Your task to perform on an android device: toggle javascript in the chrome app Image 0: 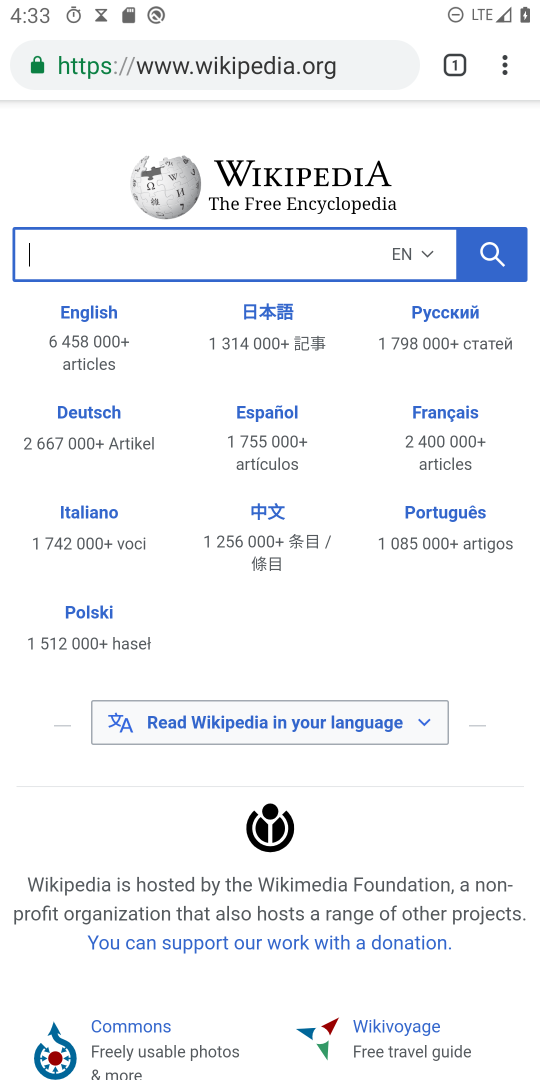
Step 0: press home button
Your task to perform on an android device: toggle javascript in the chrome app Image 1: 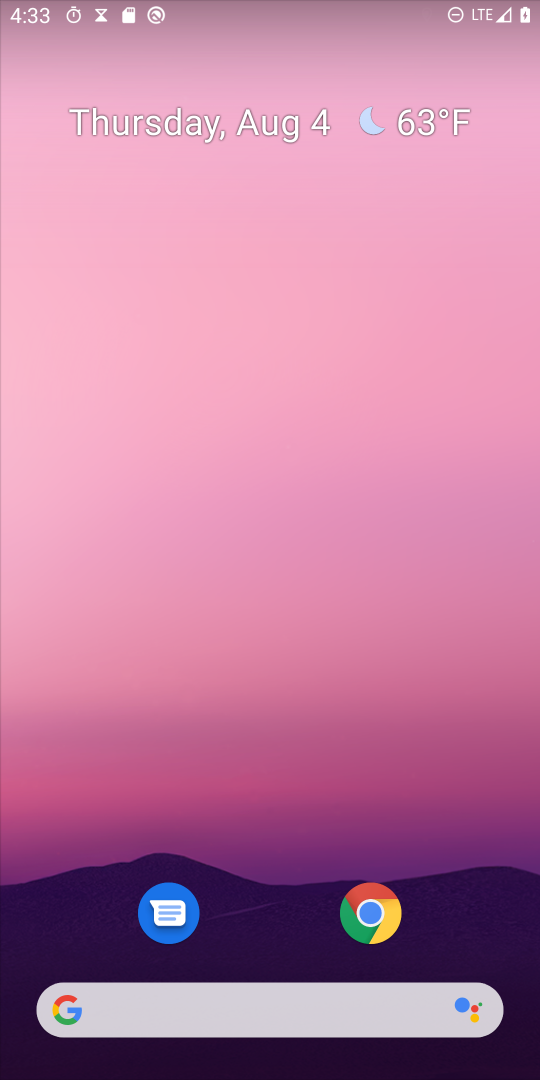
Step 1: drag from (383, 759) to (391, 179)
Your task to perform on an android device: toggle javascript in the chrome app Image 2: 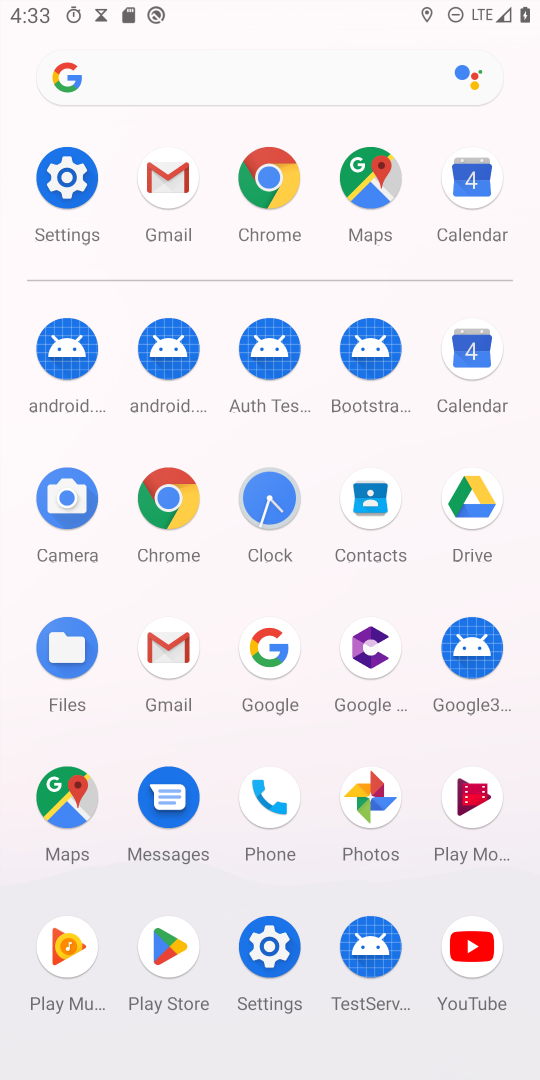
Step 2: click (162, 498)
Your task to perform on an android device: toggle javascript in the chrome app Image 3: 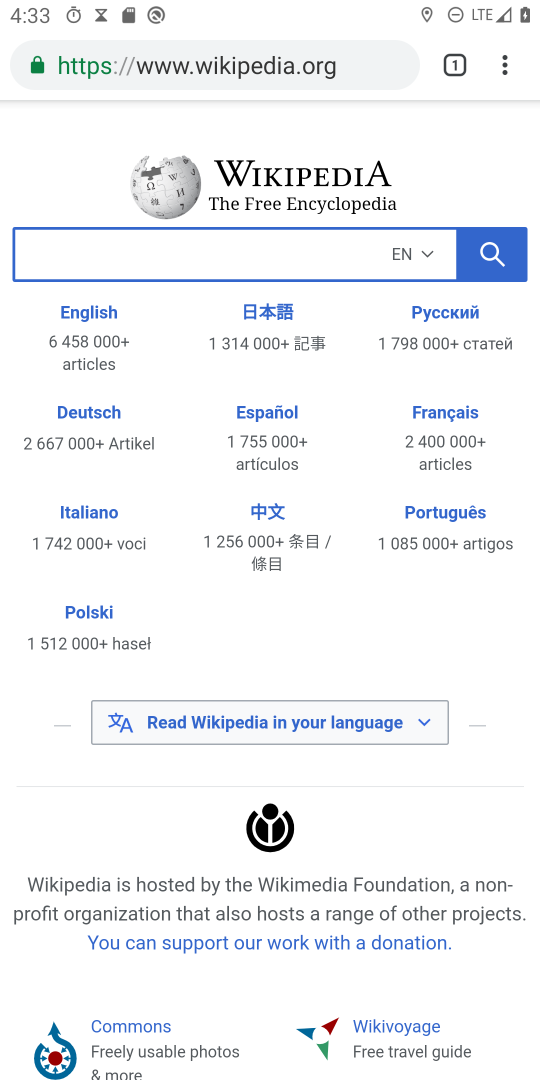
Step 3: click (497, 70)
Your task to perform on an android device: toggle javascript in the chrome app Image 4: 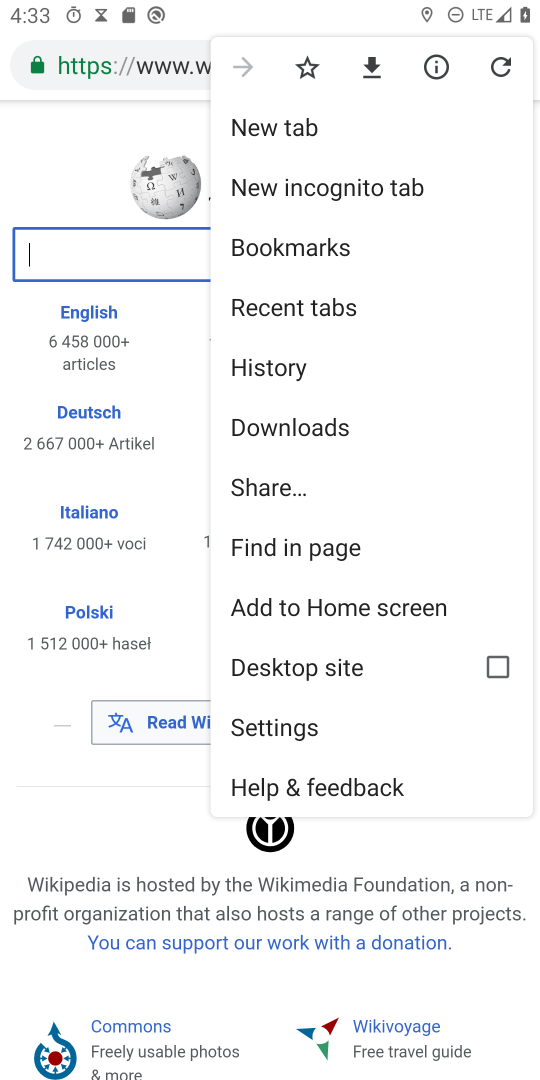
Step 4: click (321, 730)
Your task to perform on an android device: toggle javascript in the chrome app Image 5: 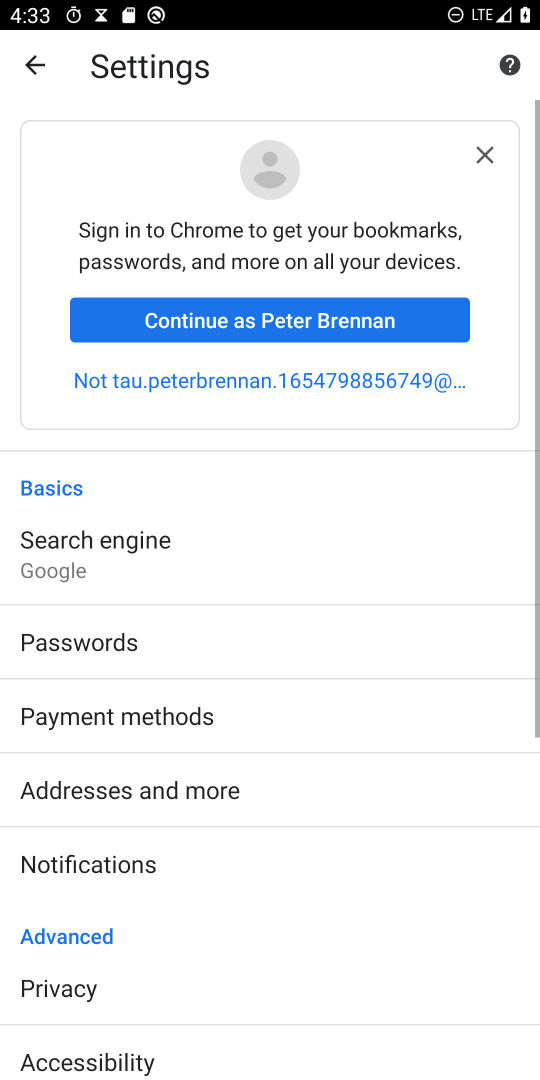
Step 5: drag from (315, 856) to (371, 206)
Your task to perform on an android device: toggle javascript in the chrome app Image 6: 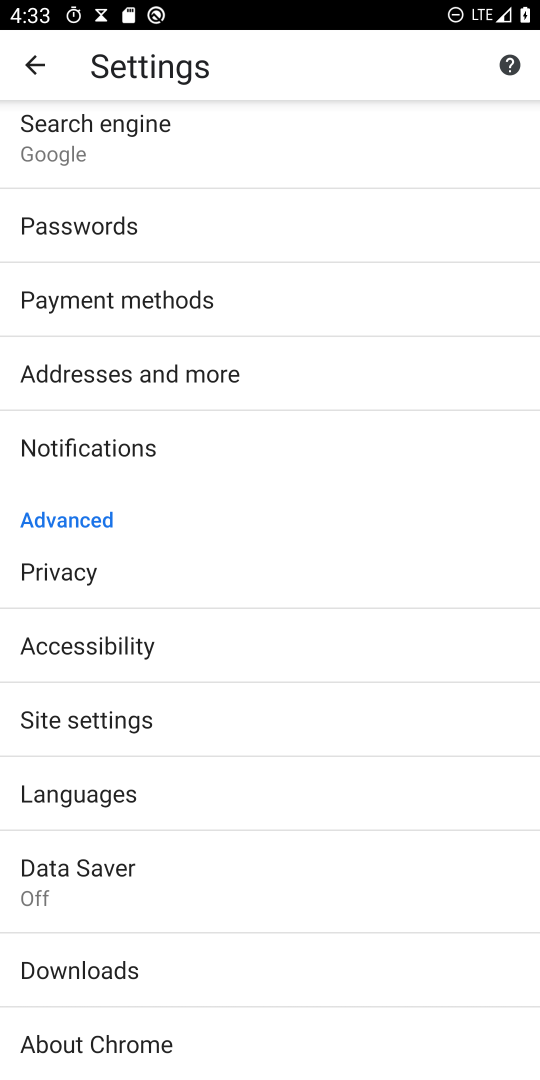
Step 6: click (121, 736)
Your task to perform on an android device: toggle javascript in the chrome app Image 7: 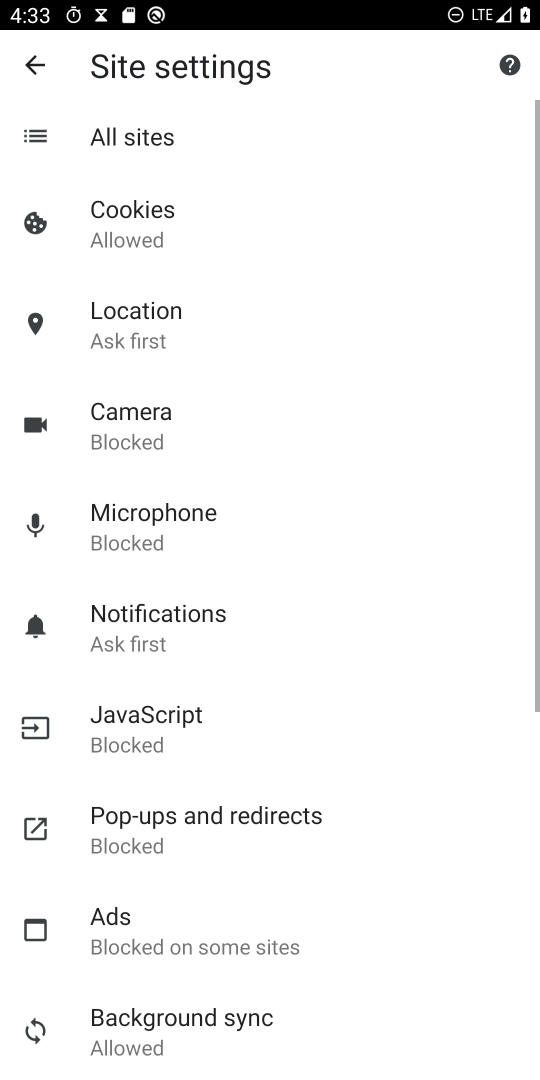
Step 7: click (181, 730)
Your task to perform on an android device: toggle javascript in the chrome app Image 8: 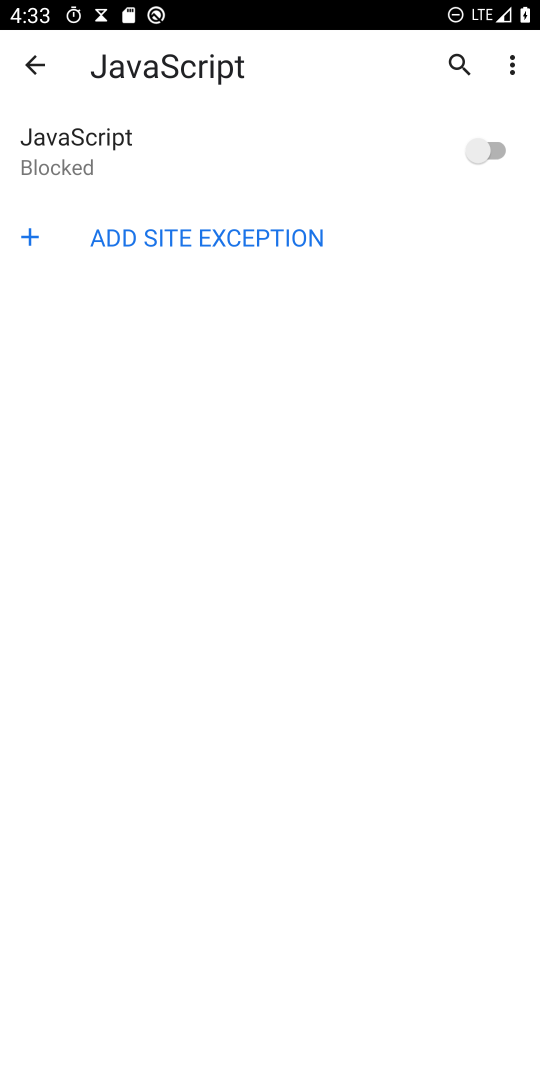
Step 8: click (505, 149)
Your task to perform on an android device: toggle javascript in the chrome app Image 9: 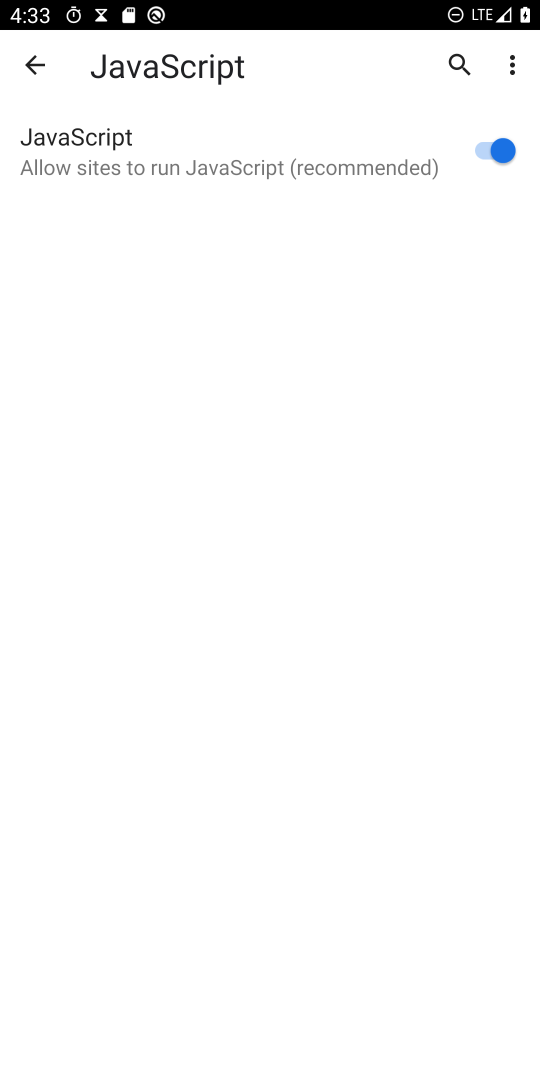
Step 9: task complete